Your task to perform on an android device: read, delete, or share a saved page in the chrome app Image 0: 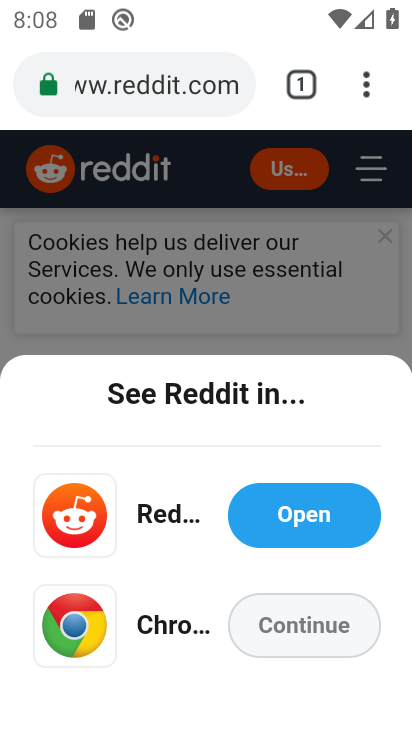
Step 0: press home button
Your task to perform on an android device: read, delete, or share a saved page in the chrome app Image 1: 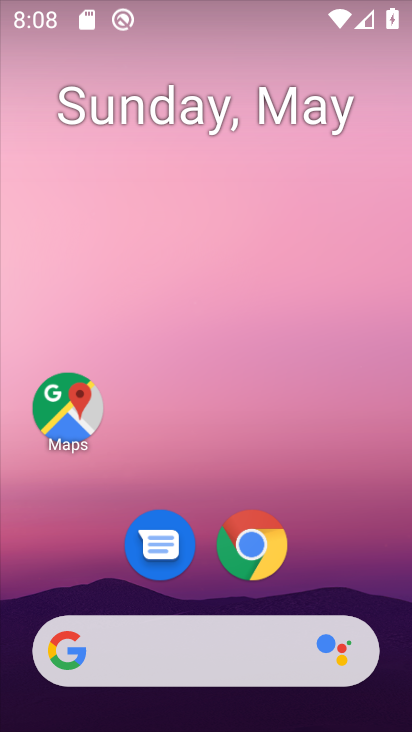
Step 1: click (261, 542)
Your task to perform on an android device: read, delete, or share a saved page in the chrome app Image 2: 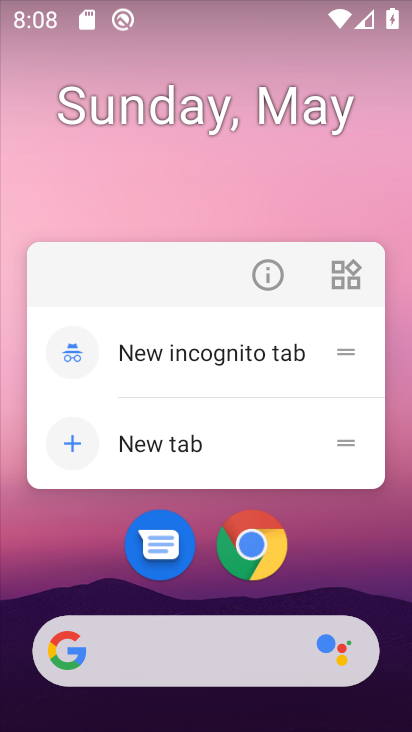
Step 2: click (257, 565)
Your task to perform on an android device: read, delete, or share a saved page in the chrome app Image 3: 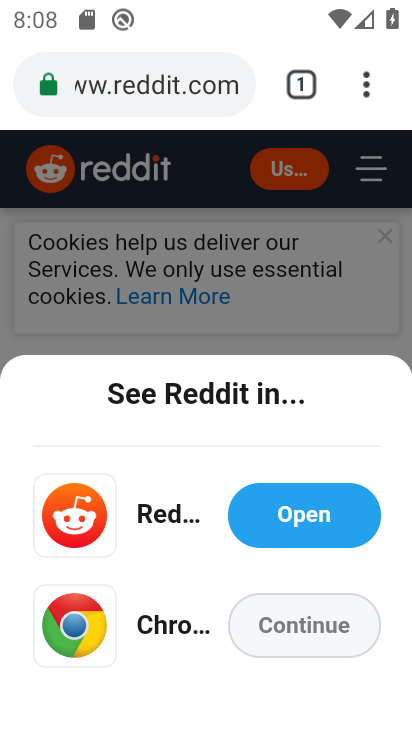
Step 3: drag from (365, 98) to (242, 546)
Your task to perform on an android device: read, delete, or share a saved page in the chrome app Image 4: 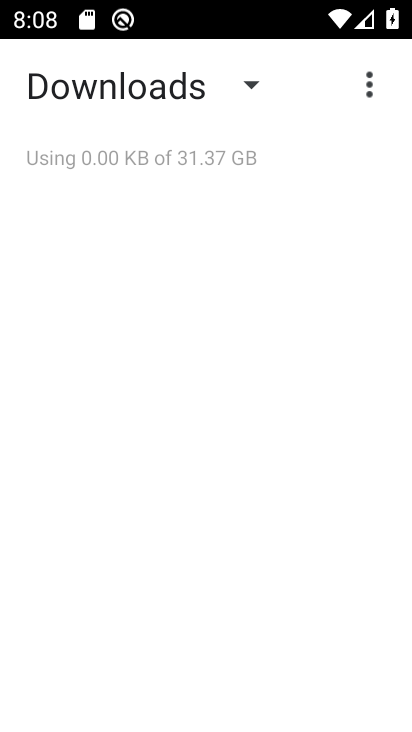
Step 4: click (143, 95)
Your task to perform on an android device: read, delete, or share a saved page in the chrome app Image 5: 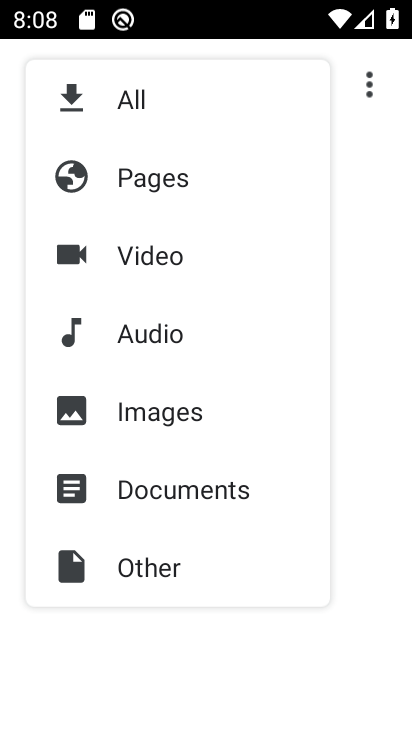
Step 5: click (162, 183)
Your task to perform on an android device: read, delete, or share a saved page in the chrome app Image 6: 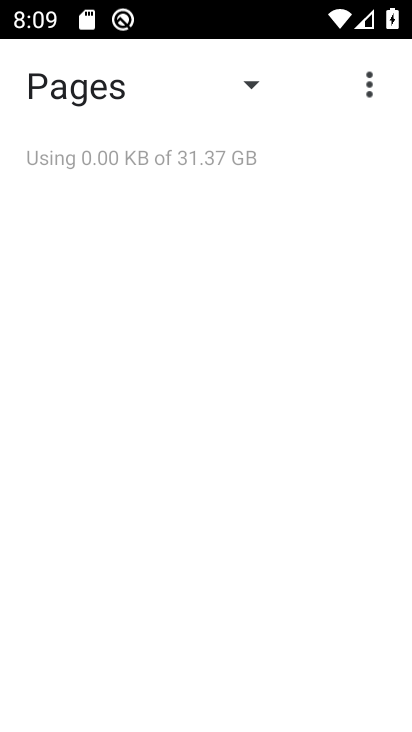
Step 6: task complete